Your task to perform on an android device: snooze an email in the gmail app Image 0: 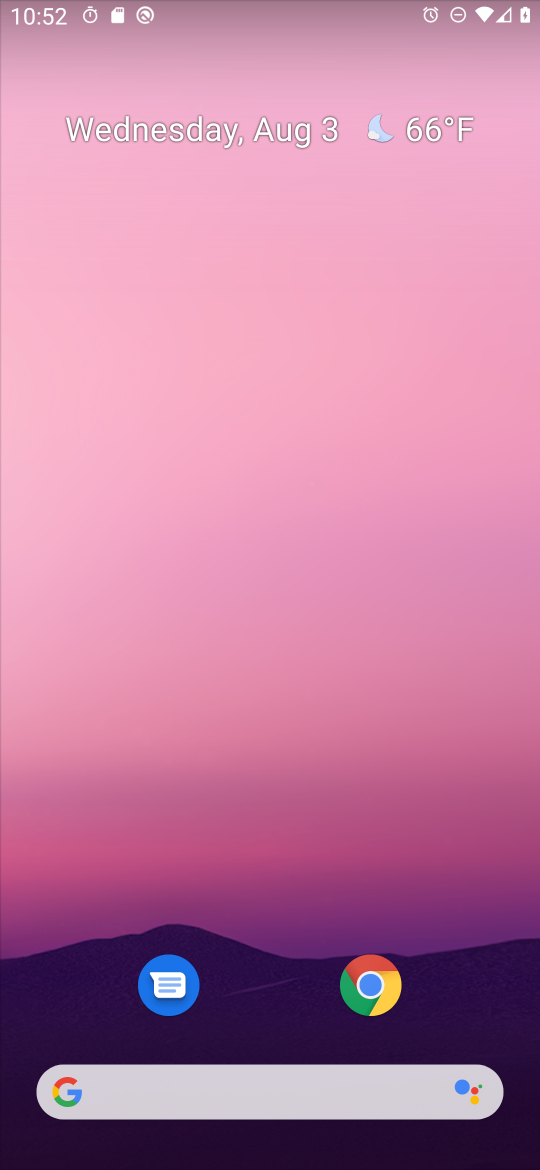
Step 0: drag from (277, 1007) to (279, 168)
Your task to perform on an android device: snooze an email in the gmail app Image 1: 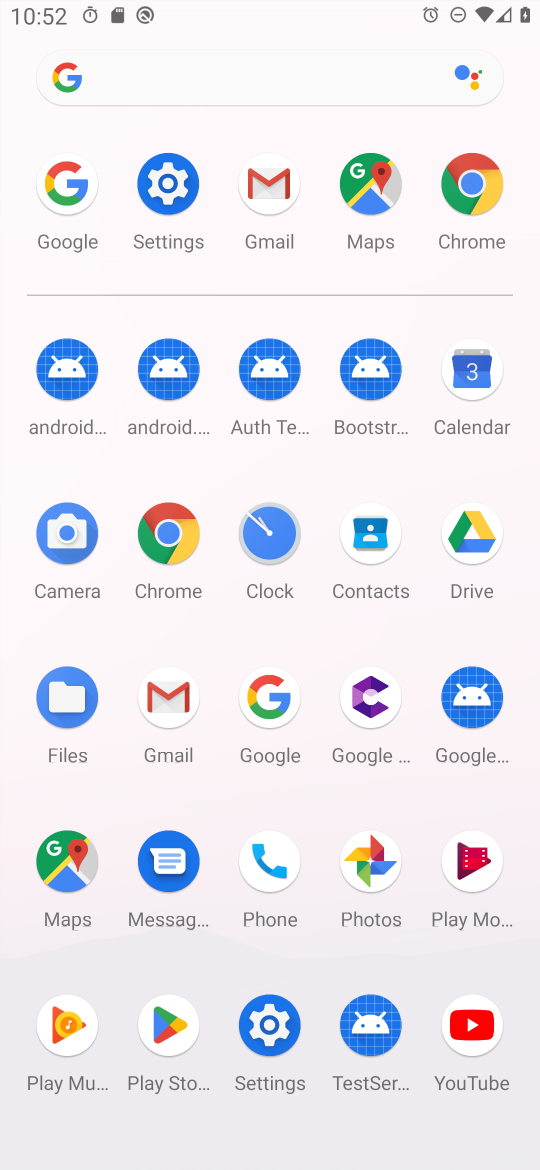
Step 1: click (268, 186)
Your task to perform on an android device: snooze an email in the gmail app Image 2: 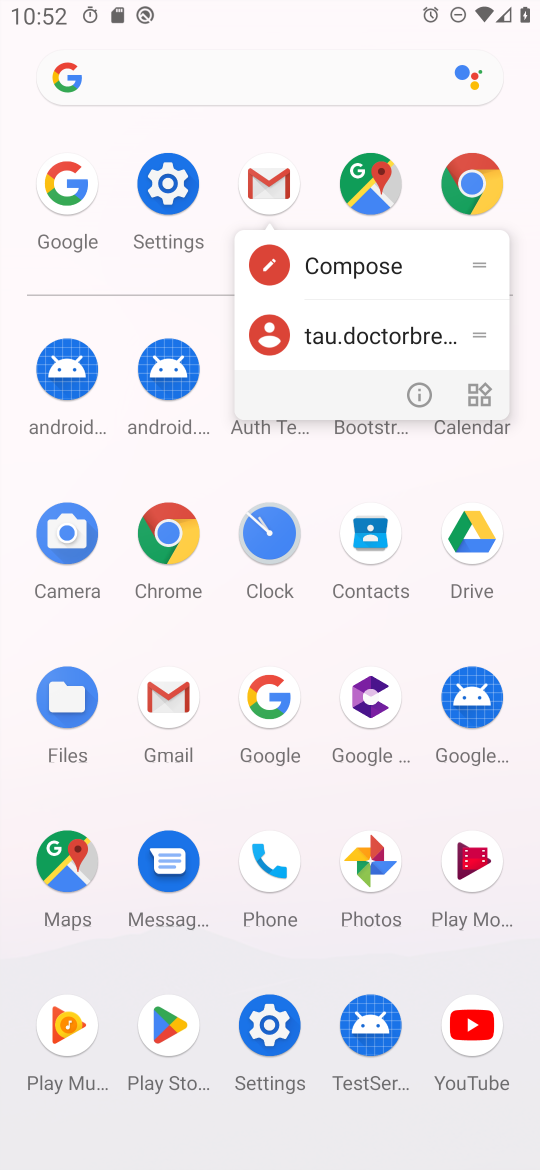
Step 2: click (268, 186)
Your task to perform on an android device: snooze an email in the gmail app Image 3: 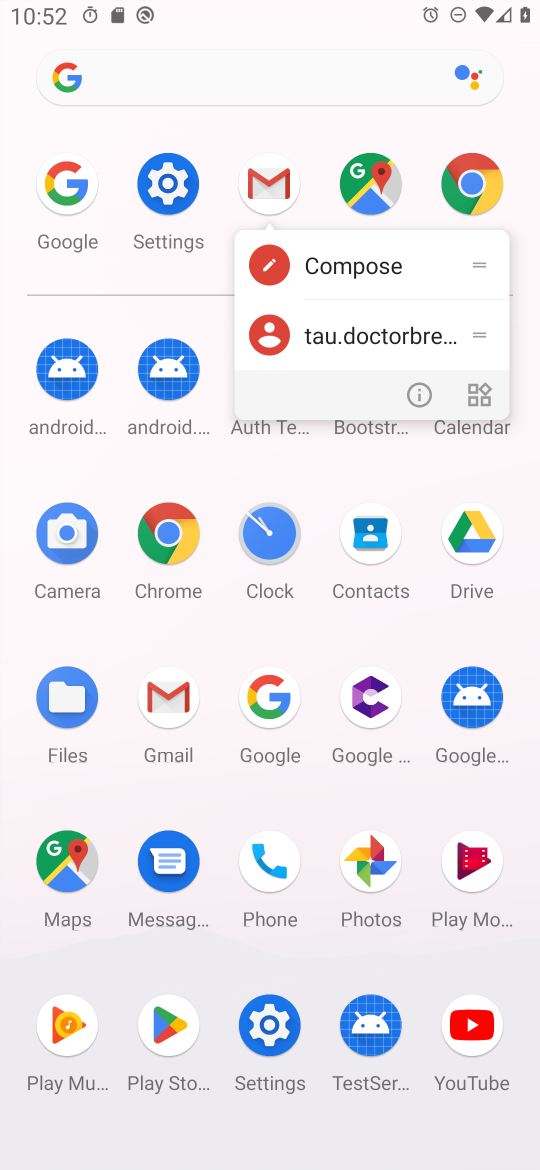
Step 3: click (268, 186)
Your task to perform on an android device: snooze an email in the gmail app Image 4: 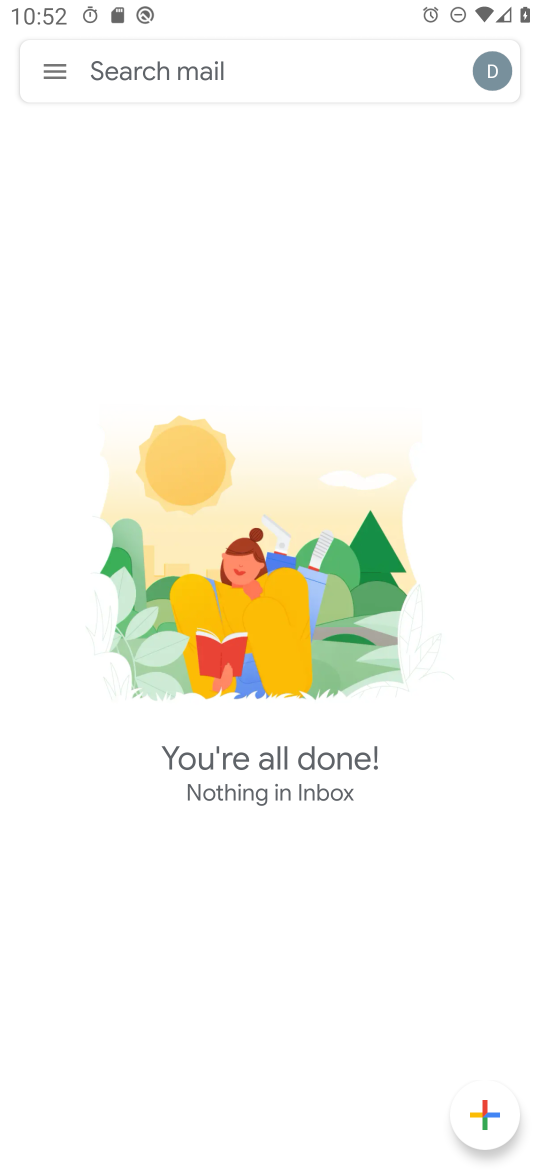
Step 4: click (58, 91)
Your task to perform on an android device: snooze an email in the gmail app Image 5: 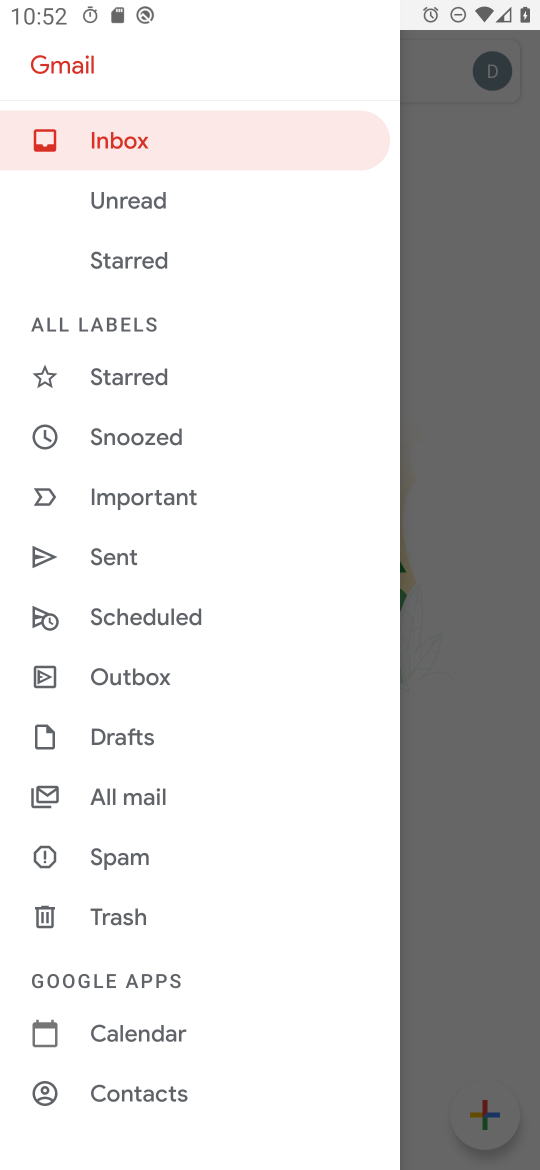
Step 5: click (138, 802)
Your task to perform on an android device: snooze an email in the gmail app Image 6: 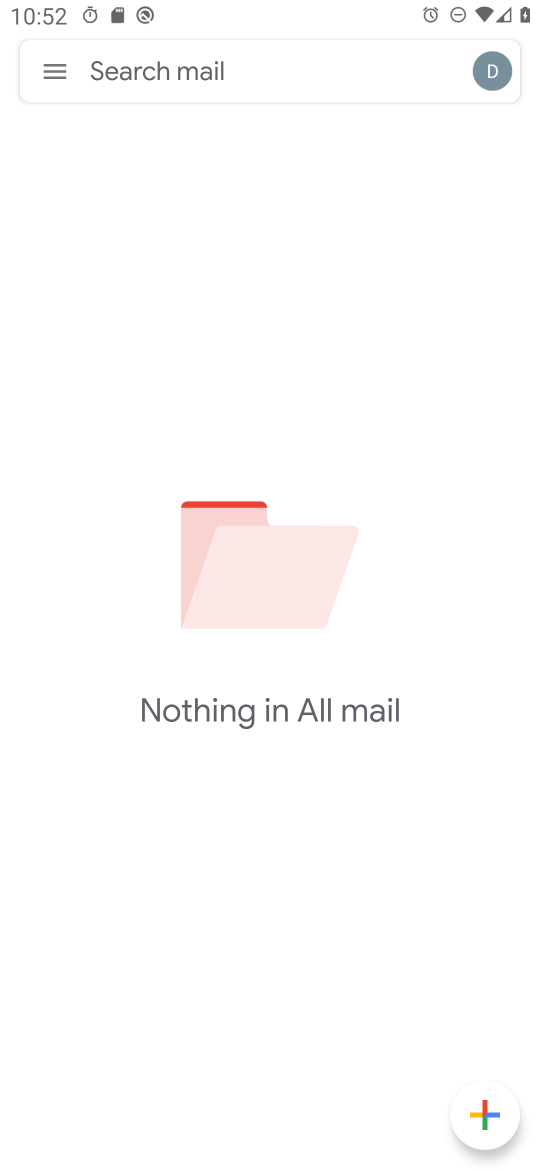
Step 6: task complete